Your task to perform on an android device: toggle sleep mode Image 0: 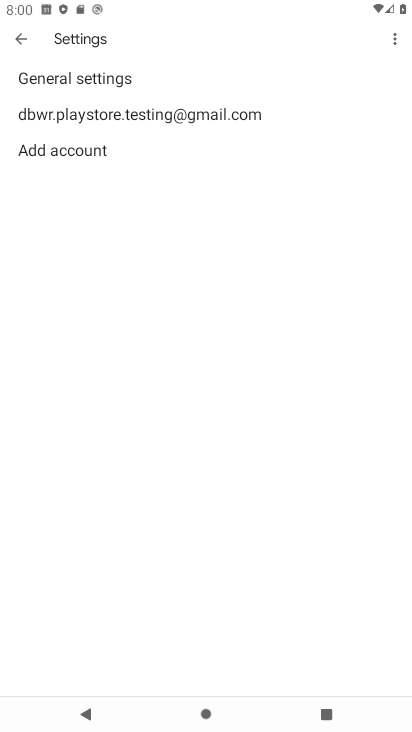
Step 0: press home button
Your task to perform on an android device: toggle sleep mode Image 1: 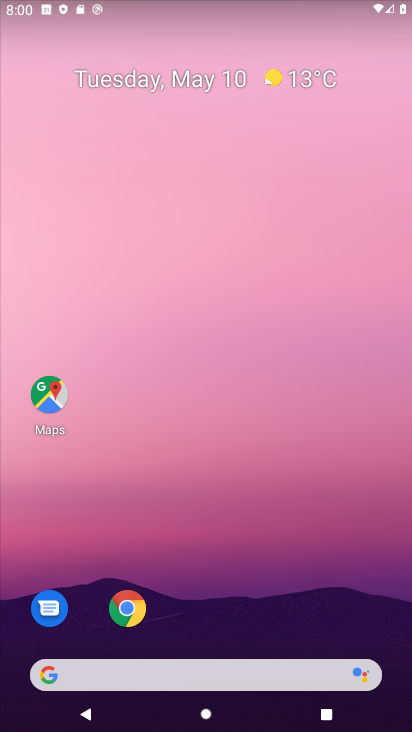
Step 1: drag from (189, 674) to (257, 181)
Your task to perform on an android device: toggle sleep mode Image 2: 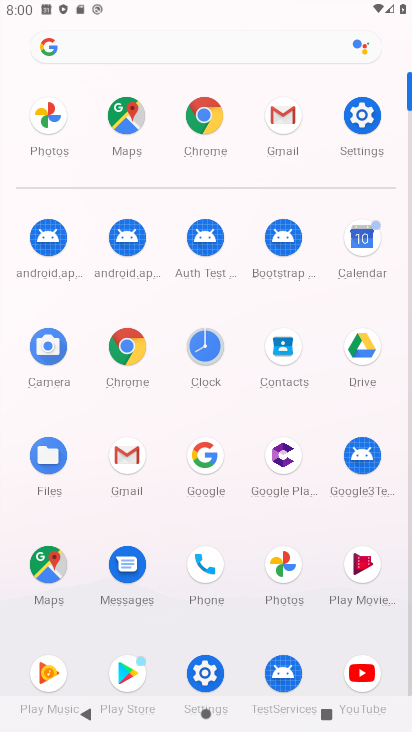
Step 2: click (363, 120)
Your task to perform on an android device: toggle sleep mode Image 3: 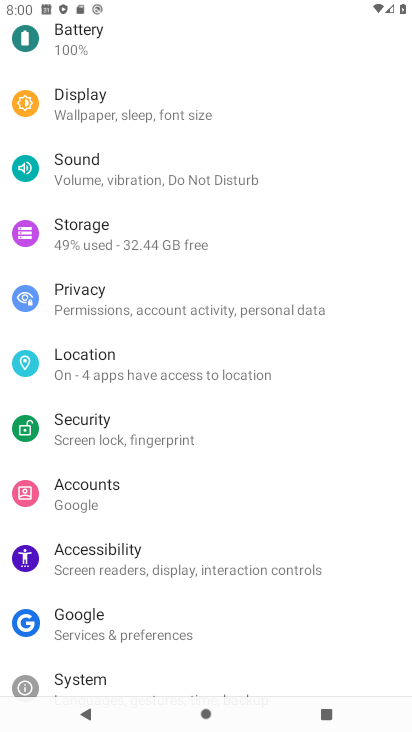
Step 3: click (133, 109)
Your task to perform on an android device: toggle sleep mode Image 4: 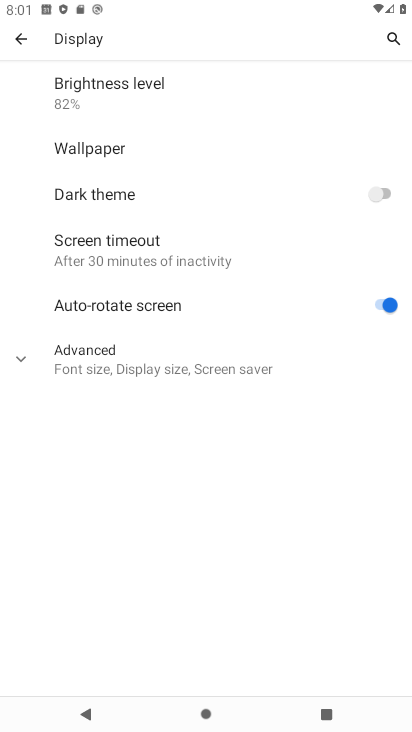
Step 4: click (26, 359)
Your task to perform on an android device: toggle sleep mode Image 5: 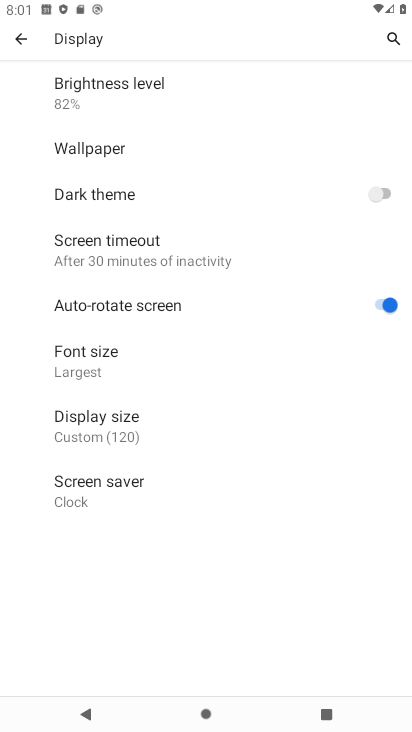
Step 5: task complete